Your task to perform on an android device: Open the map Image 0: 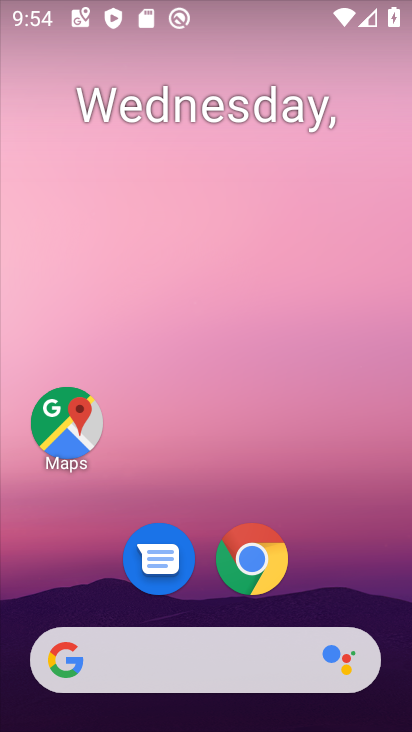
Step 0: click (68, 416)
Your task to perform on an android device: Open the map Image 1: 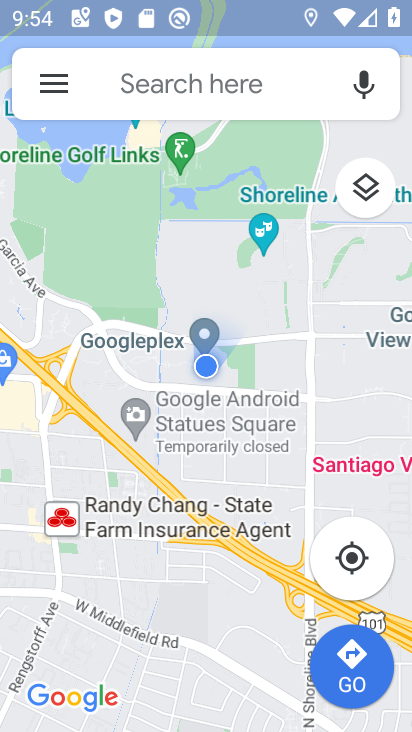
Step 1: task complete